Your task to perform on an android device: Go to network settings Image 0: 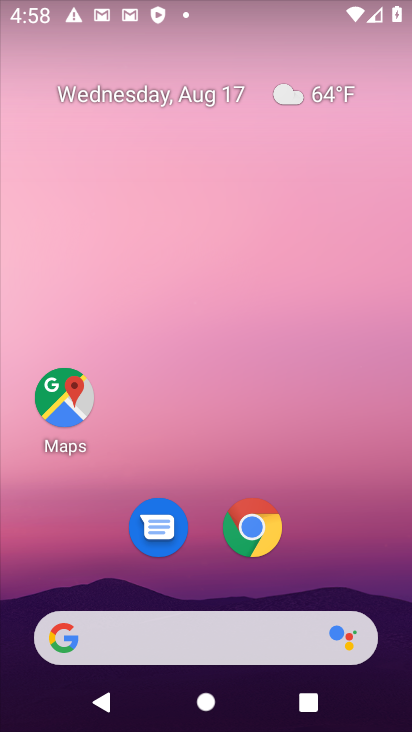
Step 0: drag from (119, 589) to (109, 229)
Your task to perform on an android device: Go to network settings Image 1: 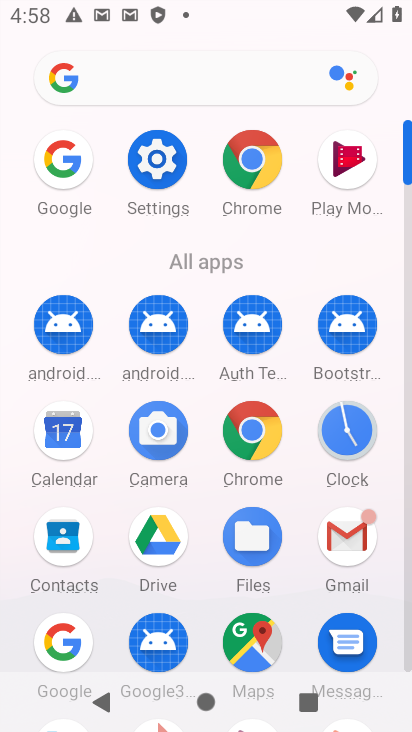
Step 1: click (154, 155)
Your task to perform on an android device: Go to network settings Image 2: 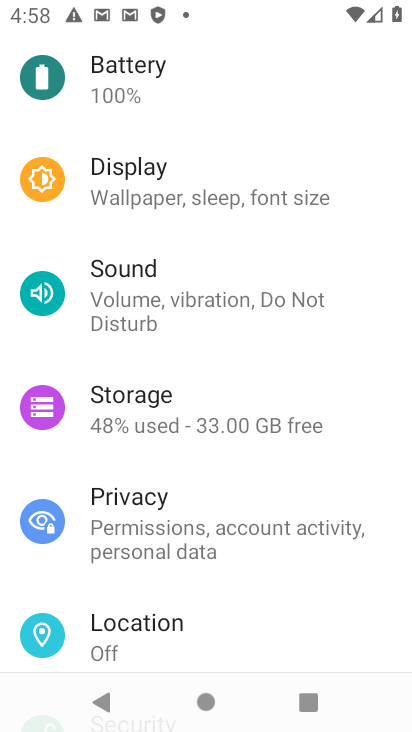
Step 2: drag from (176, 134) to (227, 504)
Your task to perform on an android device: Go to network settings Image 3: 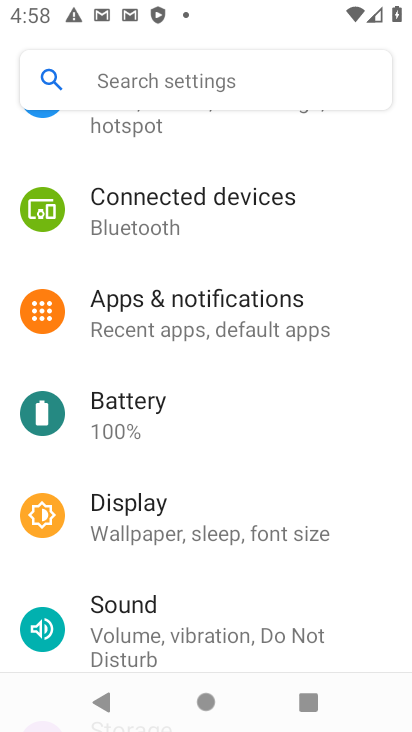
Step 3: drag from (172, 135) to (168, 611)
Your task to perform on an android device: Go to network settings Image 4: 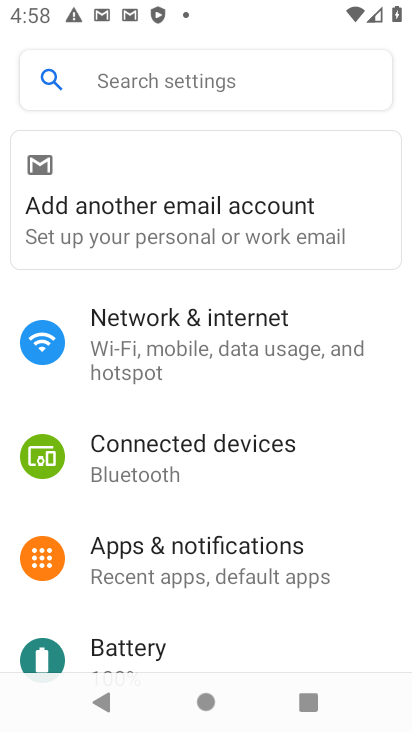
Step 4: click (159, 339)
Your task to perform on an android device: Go to network settings Image 5: 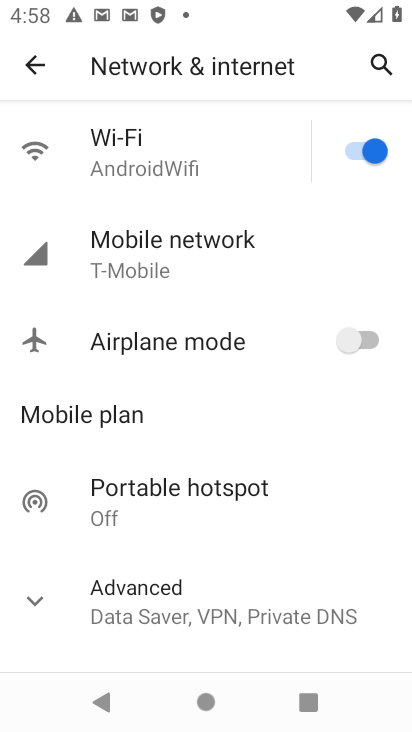
Step 5: click (165, 606)
Your task to perform on an android device: Go to network settings Image 6: 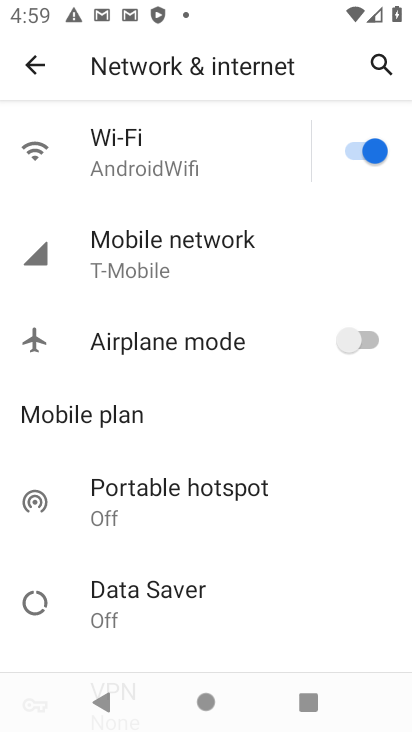
Step 6: task complete